Your task to perform on an android device: Show me popular games on the Play Store Image 0: 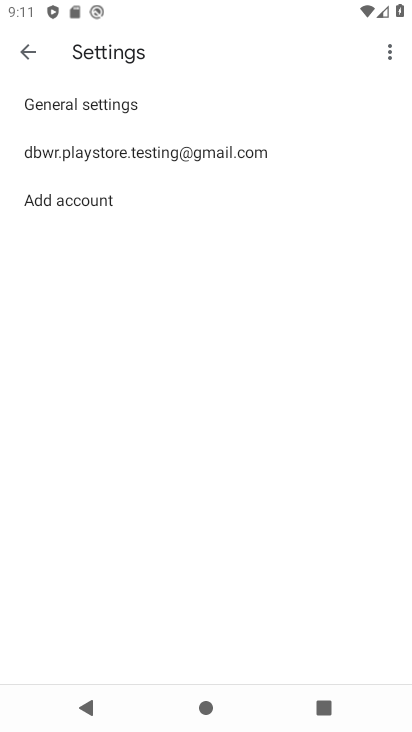
Step 0: press home button
Your task to perform on an android device: Show me popular games on the Play Store Image 1: 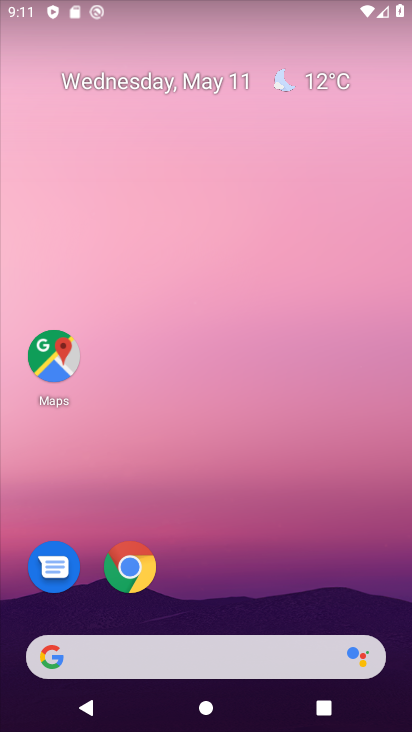
Step 1: drag from (183, 629) to (210, 263)
Your task to perform on an android device: Show me popular games on the Play Store Image 2: 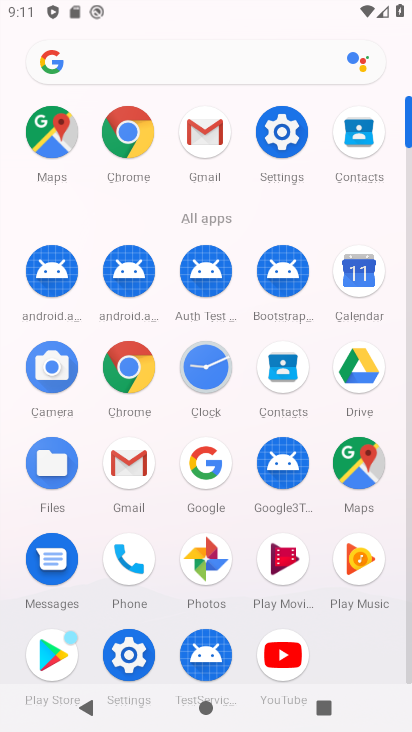
Step 2: click (47, 661)
Your task to perform on an android device: Show me popular games on the Play Store Image 3: 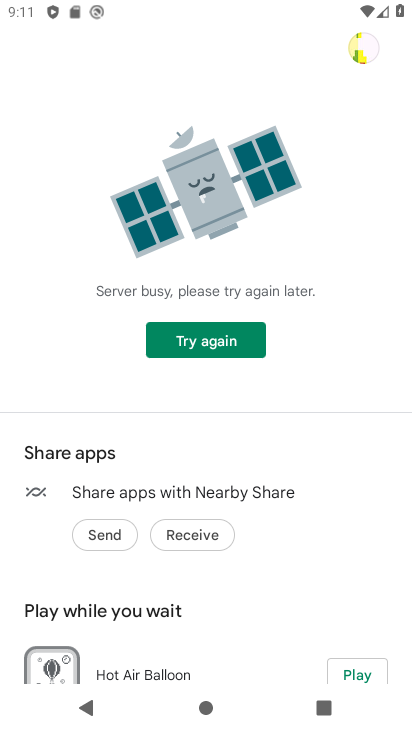
Step 3: task complete